Your task to perform on an android device: When is my next meeting? Image 0: 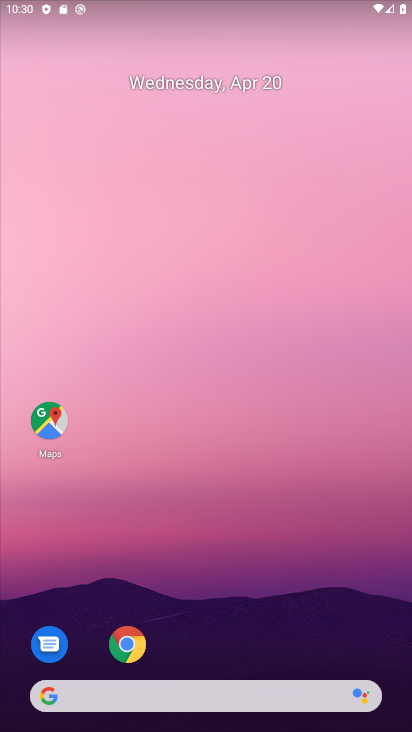
Step 0: drag from (180, 479) to (197, 22)
Your task to perform on an android device: When is my next meeting? Image 1: 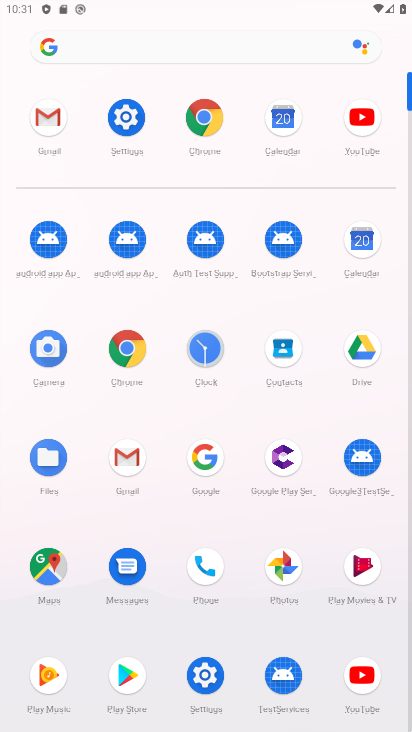
Step 1: click (284, 124)
Your task to perform on an android device: When is my next meeting? Image 2: 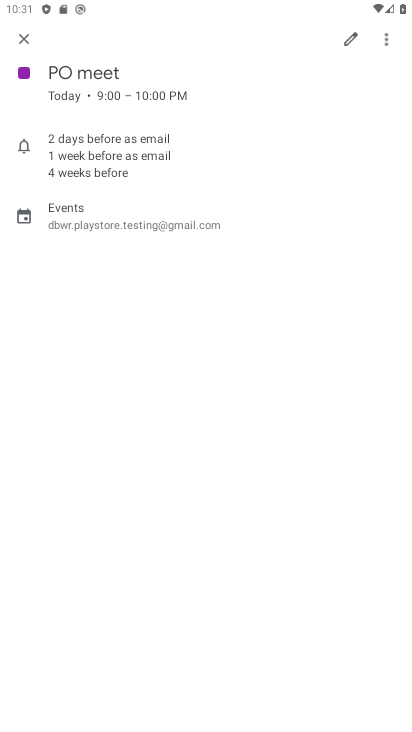
Step 2: task complete